Your task to perform on an android device: set the timer Image 0: 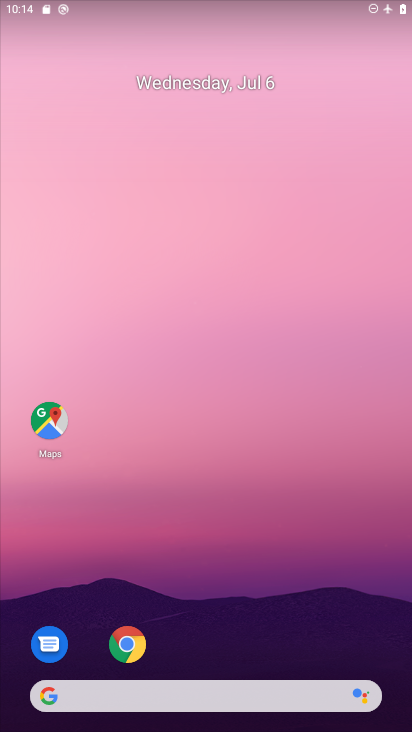
Step 0: drag from (217, 604) to (267, 77)
Your task to perform on an android device: set the timer Image 1: 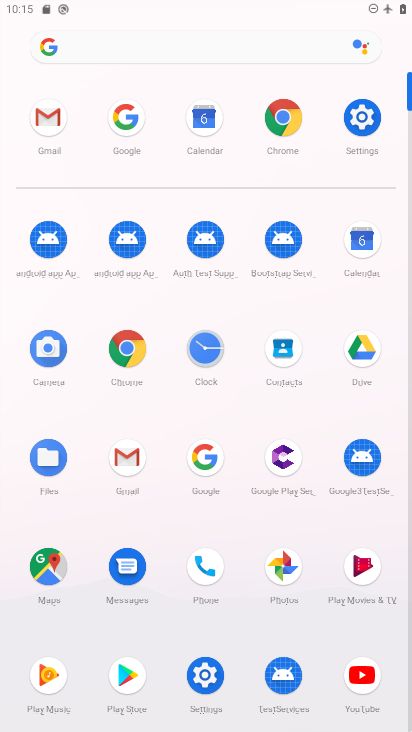
Step 1: click (209, 341)
Your task to perform on an android device: set the timer Image 2: 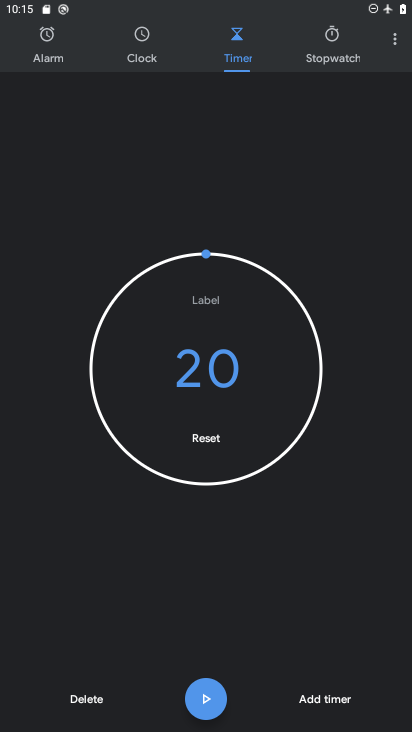
Step 2: click (204, 701)
Your task to perform on an android device: set the timer Image 3: 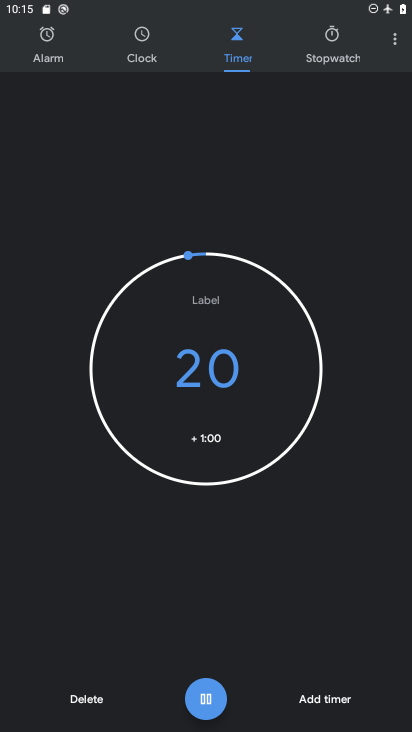
Step 3: task complete